Your task to perform on an android device: open app "Facebook Lite" (install if not already installed) and go to login screen Image 0: 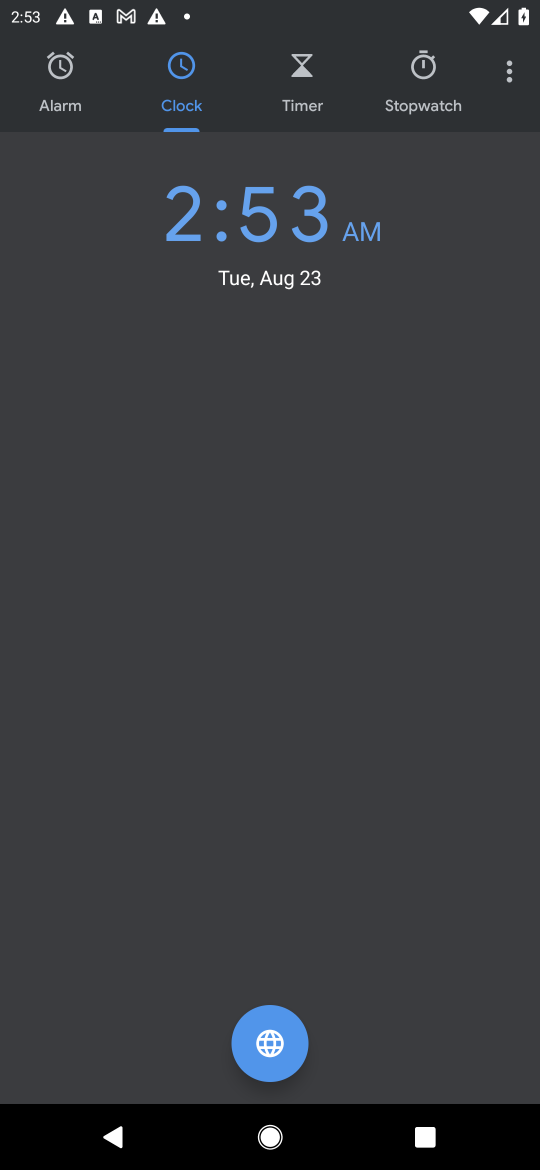
Step 0: press home button
Your task to perform on an android device: open app "Facebook Lite" (install if not already installed) and go to login screen Image 1: 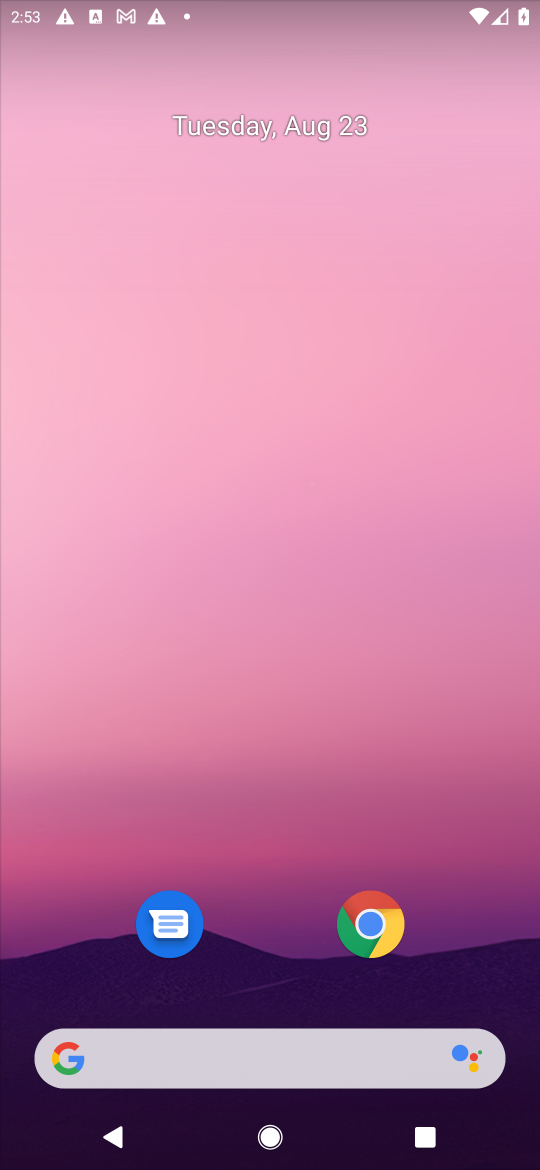
Step 1: press home button
Your task to perform on an android device: open app "Facebook Lite" (install if not already installed) and go to login screen Image 2: 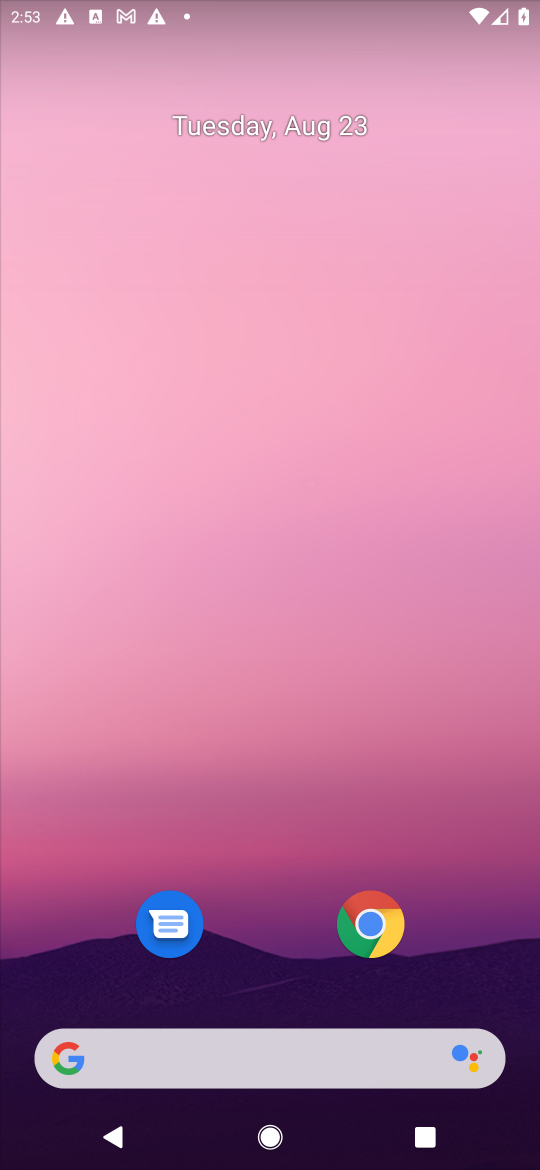
Step 2: drag from (470, 896) to (442, 180)
Your task to perform on an android device: open app "Facebook Lite" (install if not already installed) and go to login screen Image 3: 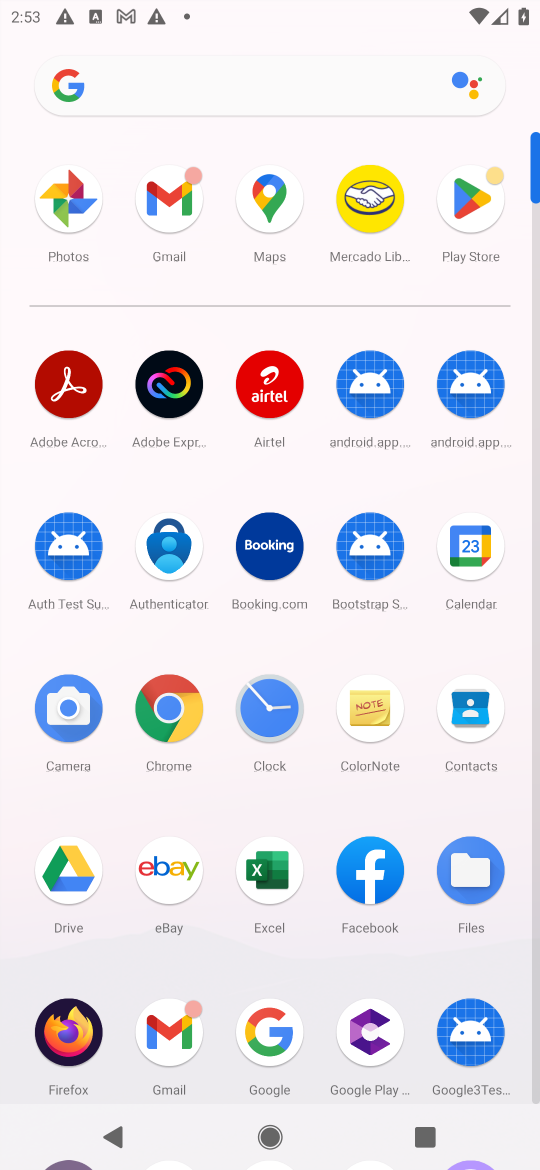
Step 3: click (473, 208)
Your task to perform on an android device: open app "Facebook Lite" (install if not already installed) and go to login screen Image 4: 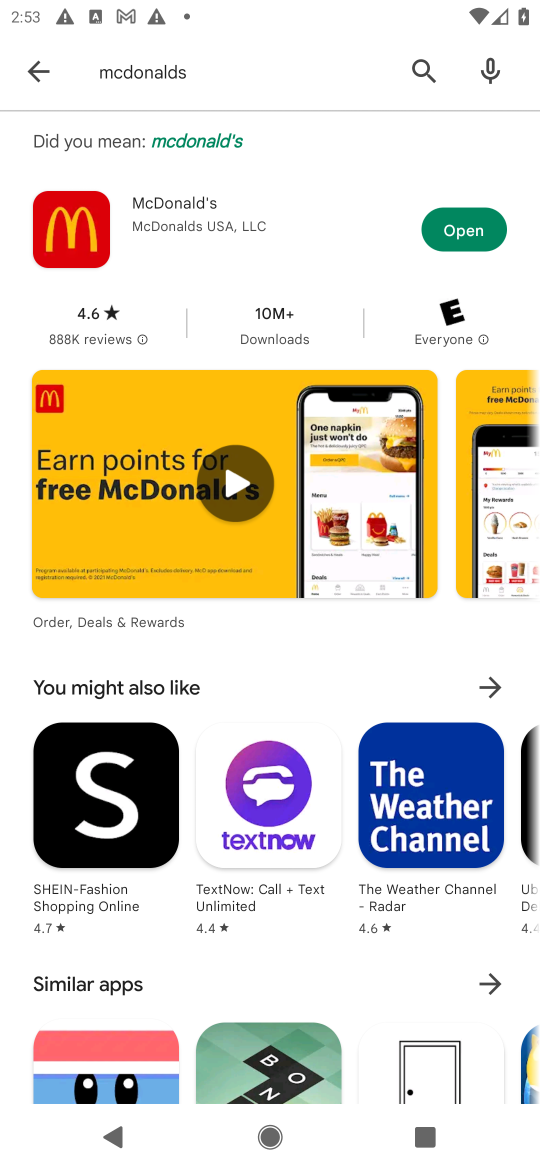
Step 4: press back button
Your task to perform on an android device: open app "Facebook Lite" (install if not already installed) and go to login screen Image 5: 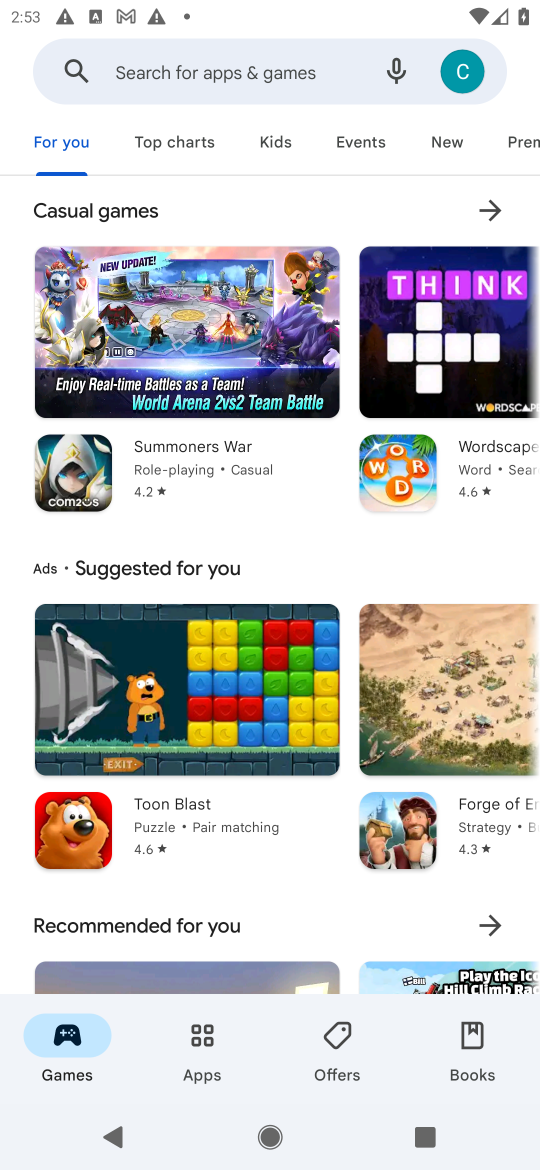
Step 5: click (254, 72)
Your task to perform on an android device: open app "Facebook Lite" (install if not already installed) and go to login screen Image 6: 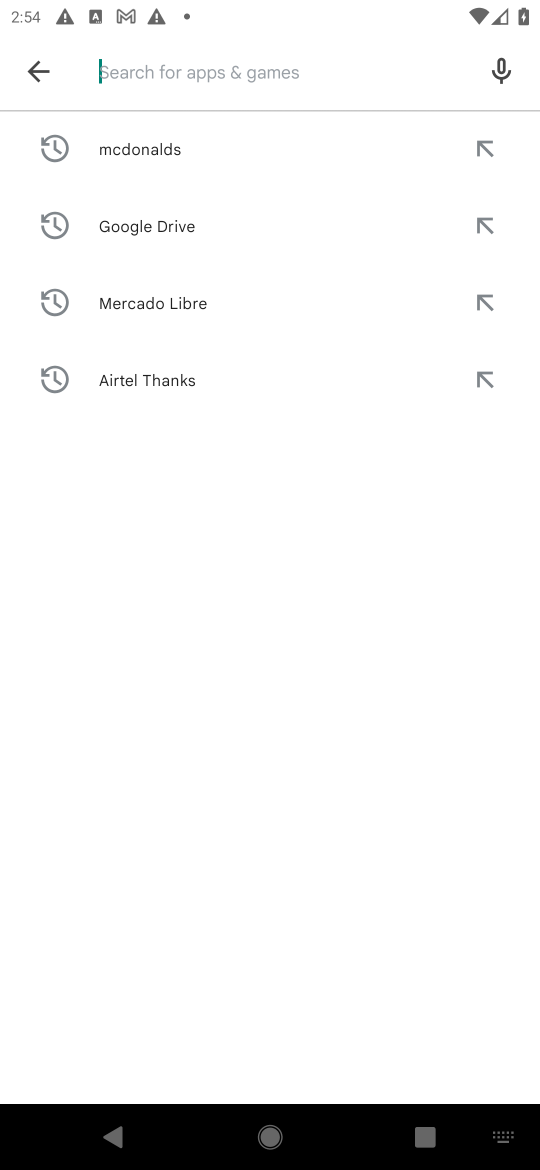
Step 6: press enter
Your task to perform on an android device: open app "Facebook Lite" (install if not already installed) and go to login screen Image 7: 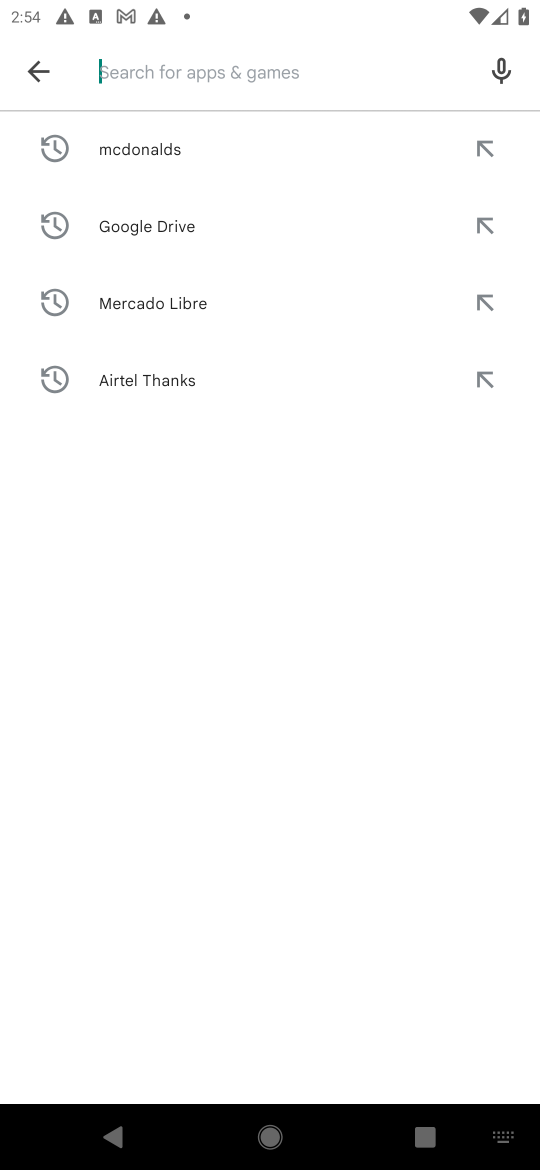
Step 7: type "facebook lite"
Your task to perform on an android device: open app "Facebook Lite" (install if not already installed) and go to login screen Image 8: 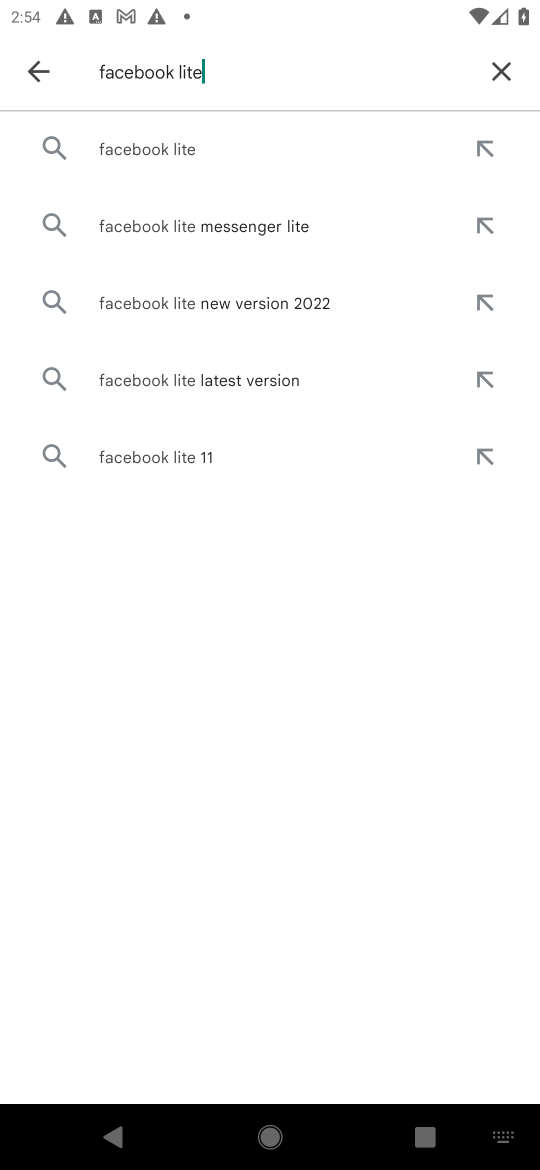
Step 8: click (200, 143)
Your task to perform on an android device: open app "Facebook Lite" (install if not already installed) and go to login screen Image 9: 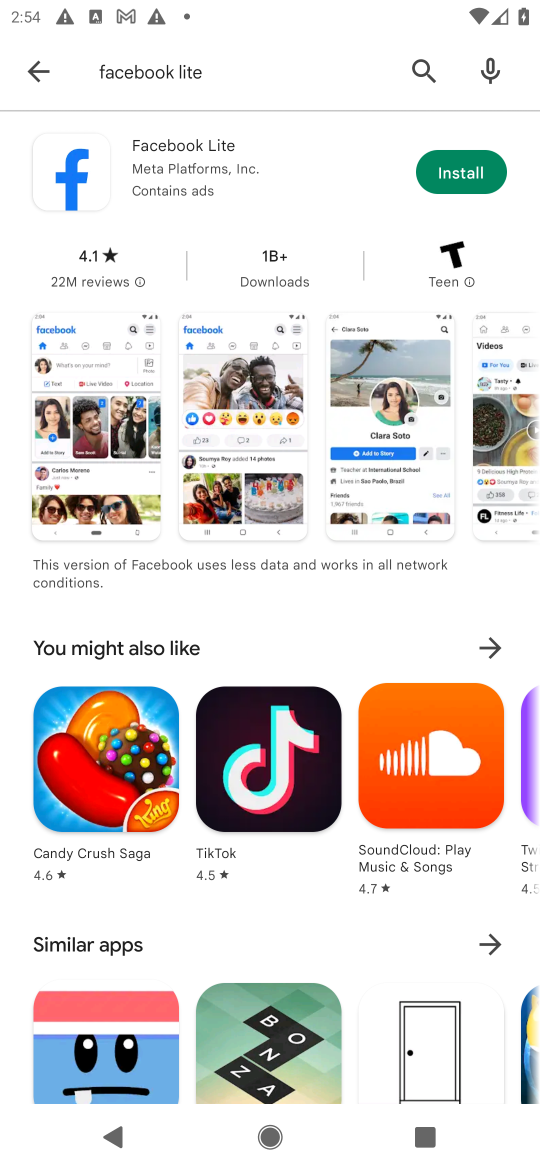
Step 9: click (467, 166)
Your task to perform on an android device: open app "Facebook Lite" (install if not already installed) and go to login screen Image 10: 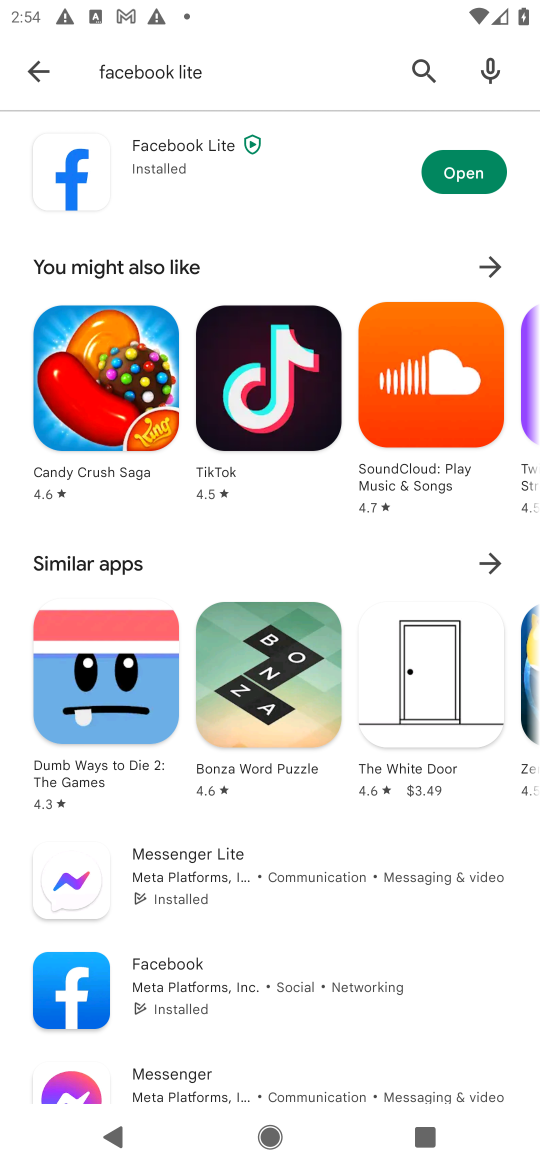
Step 10: click (450, 181)
Your task to perform on an android device: open app "Facebook Lite" (install if not already installed) and go to login screen Image 11: 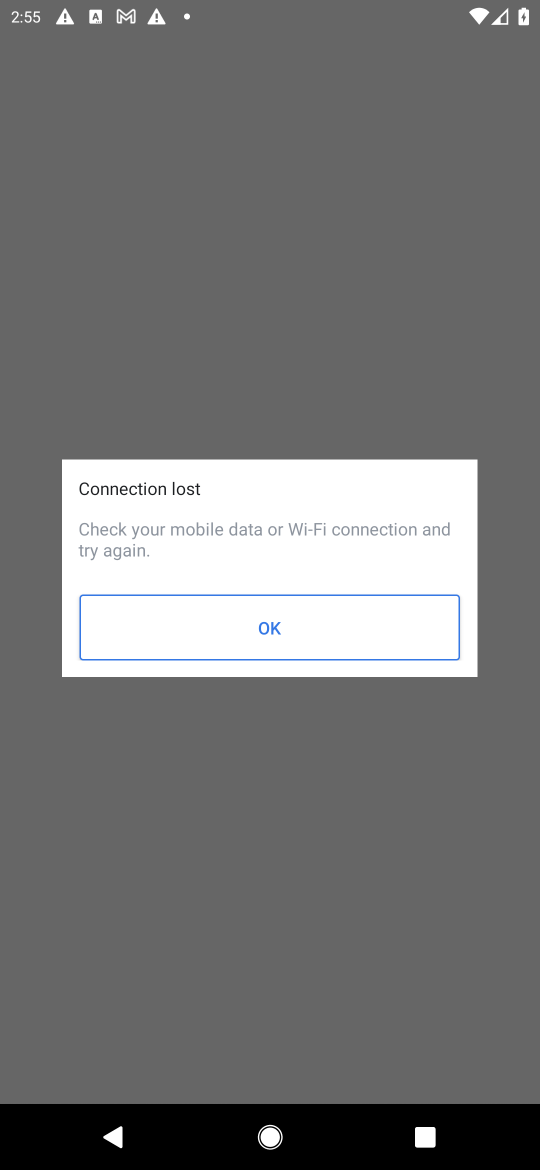
Step 11: click (323, 636)
Your task to perform on an android device: open app "Facebook Lite" (install if not already installed) and go to login screen Image 12: 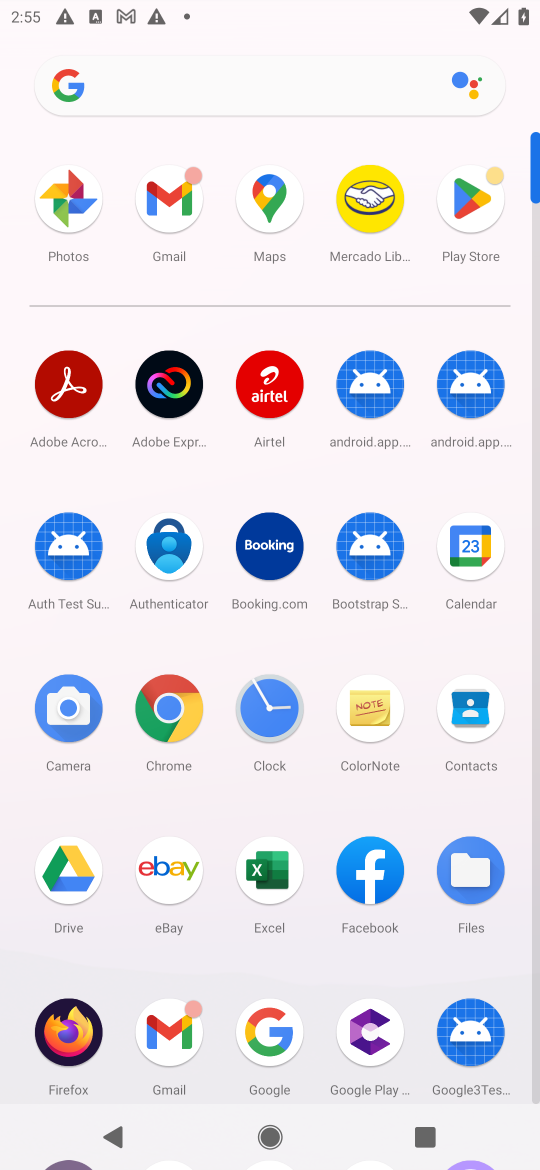
Step 12: task complete